Your task to perform on an android device: Open the web browser Image 0: 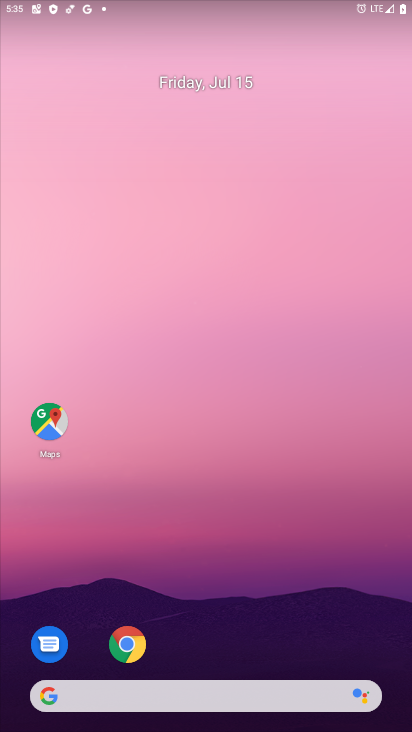
Step 0: drag from (220, 666) to (268, 204)
Your task to perform on an android device: Open the web browser Image 1: 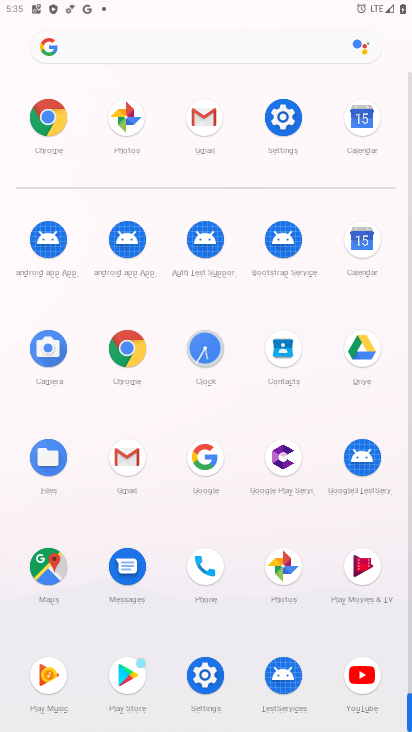
Step 1: click (201, 459)
Your task to perform on an android device: Open the web browser Image 2: 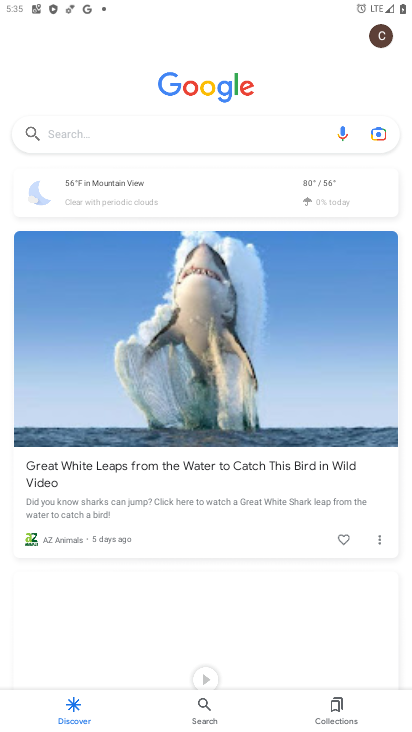
Step 2: click (189, 148)
Your task to perform on an android device: Open the web browser Image 3: 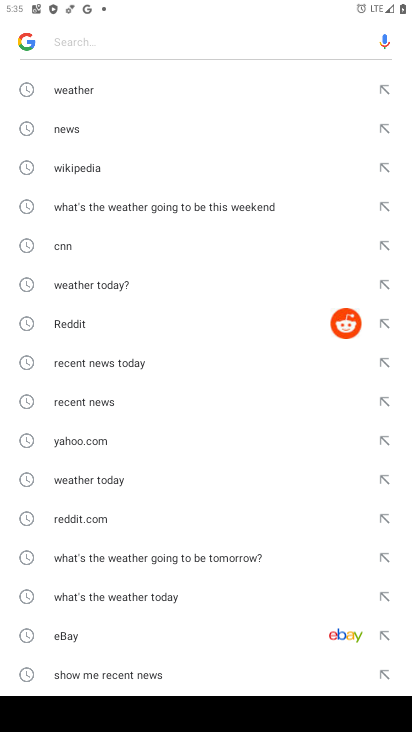
Step 3: task complete